Your task to perform on an android device: Go to accessibility settings Image 0: 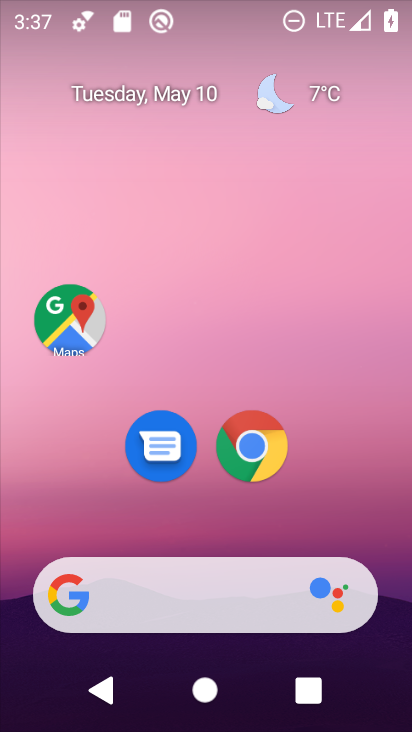
Step 0: drag from (318, 525) to (256, 37)
Your task to perform on an android device: Go to accessibility settings Image 1: 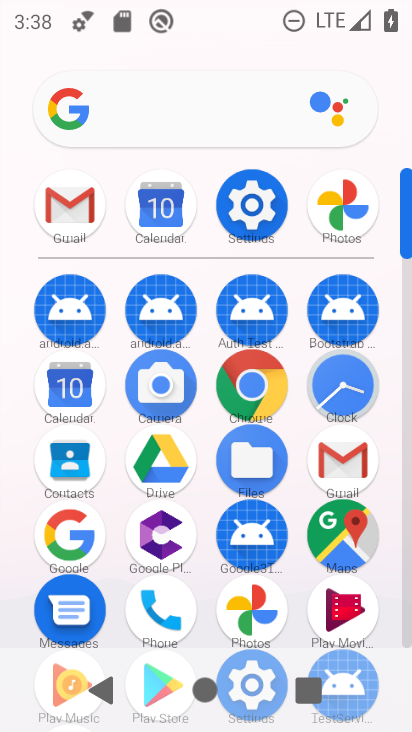
Step 1: click (256, 193)
Your task to perform on an android device: Go to accessibility settings Image 2: 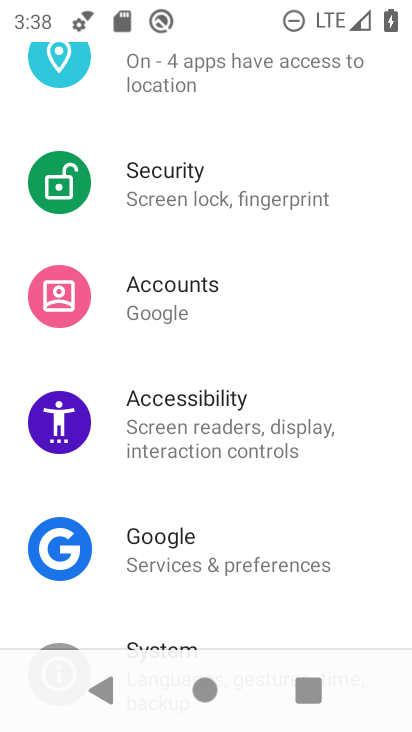
Step 2: click (224, 422)
Your task to perform on an android device: Go to accessibility settings Image 3: 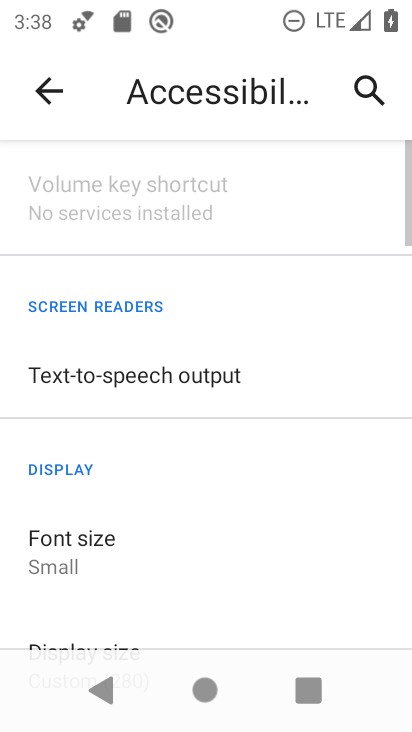
Step 3: task complete